Your task to perform on an android device: change the clock style Image 0: 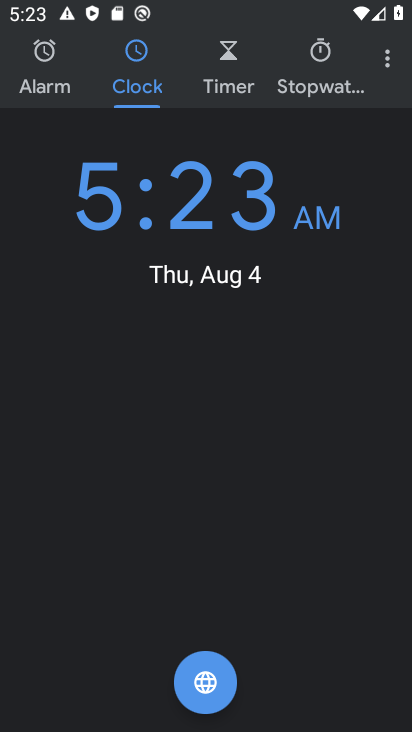
Step 0: click (385, 54)
Your task to perform on an android device: change the clock style Image 1: 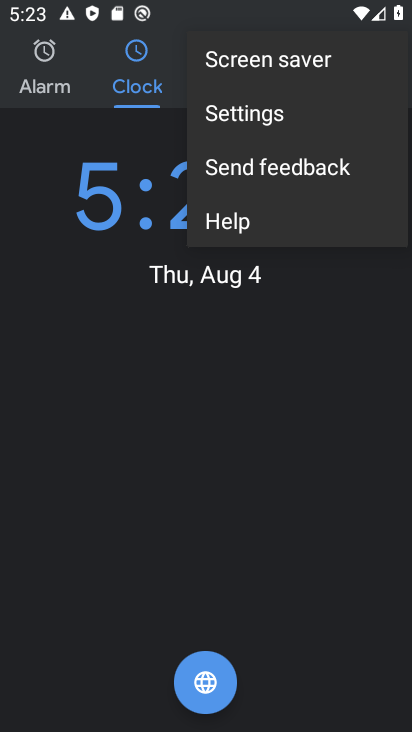
Step 1: click (258, 118)
Your task to perform on an android device: change the clock style Image 2: 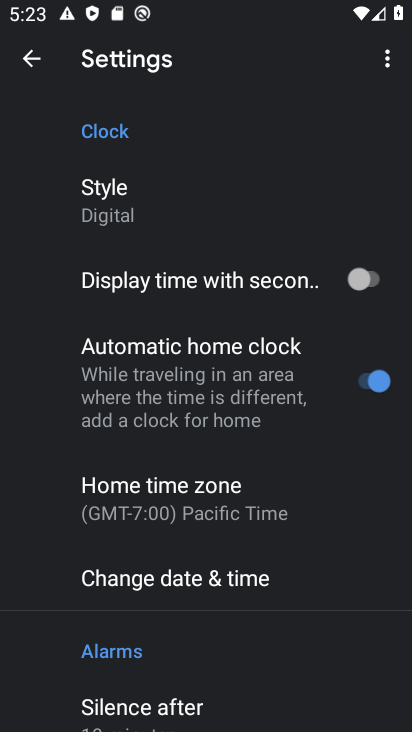
Step 2: click (135, 198)
Your task to perform on an android device: change the clock style Image 3: 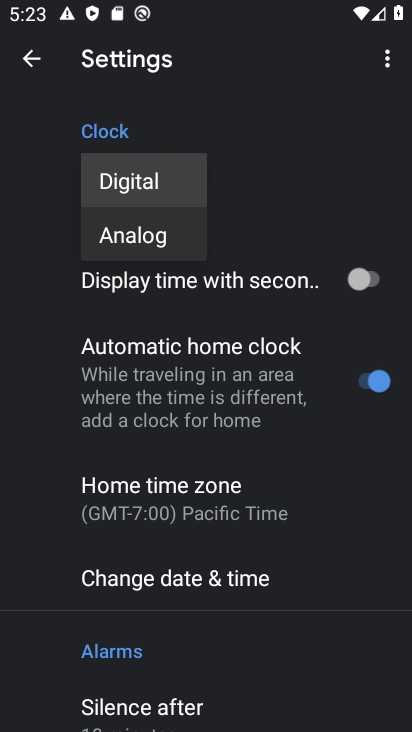
Step 3: click (139, 244)
Your task to perform on an android device: change the clock style Image 4: 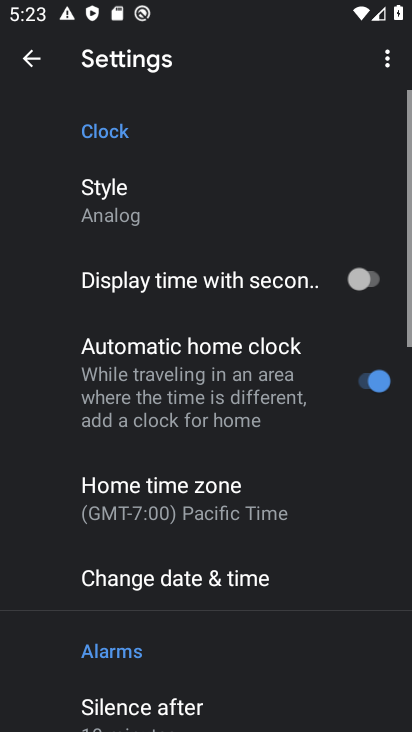
Step 4: task complete